Your task to perform on an android device: Show me popular videos on Youtube Image 0: 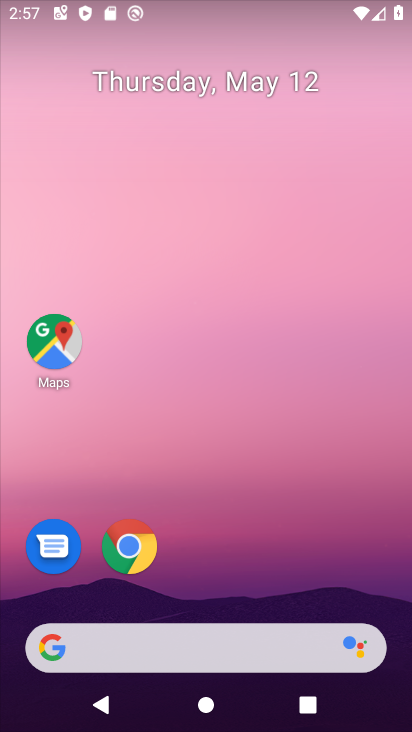
Step 0: drag from (245, 615) to (280, 208)
Your task to perform on an android device: Show me popular videos on Youtube Image 1: 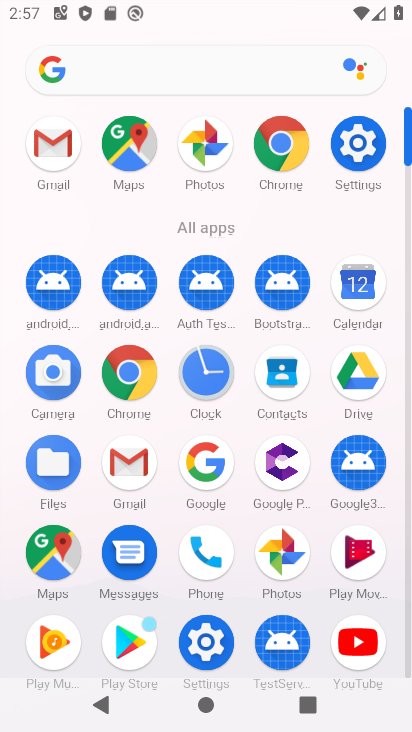
Step 1: click (352, 634)
Your task to perform on an android device: Show me popular videos on Youtube Image 2: 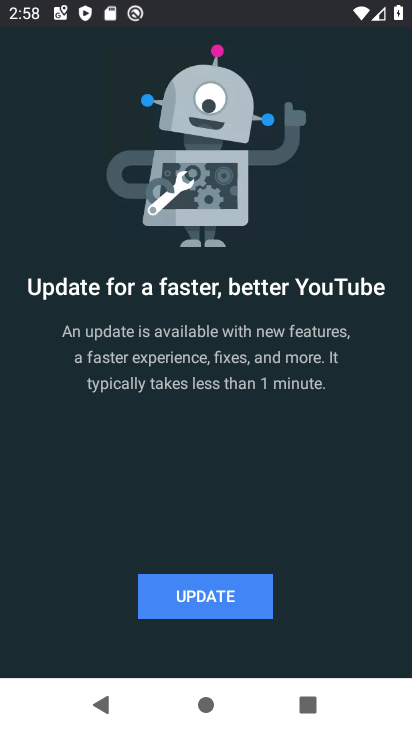
Step 2: task complete